Your task to perform on an android device: remove spam from my inbox in the gmail app Image 0: 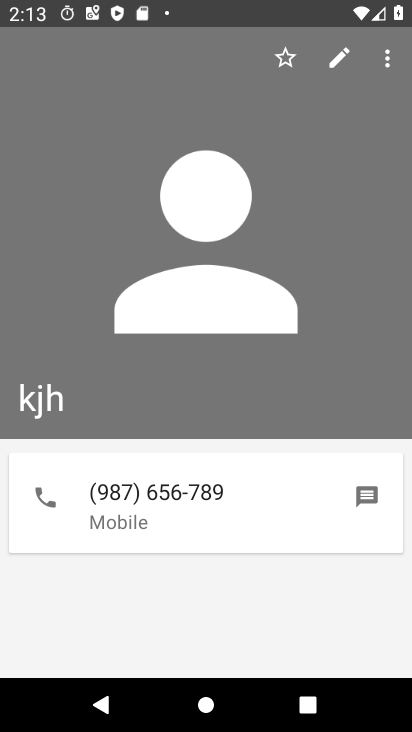
Step 0: press home button
Your task to perform on an android device: remove spam from my inbox in the gmail app Image 1: 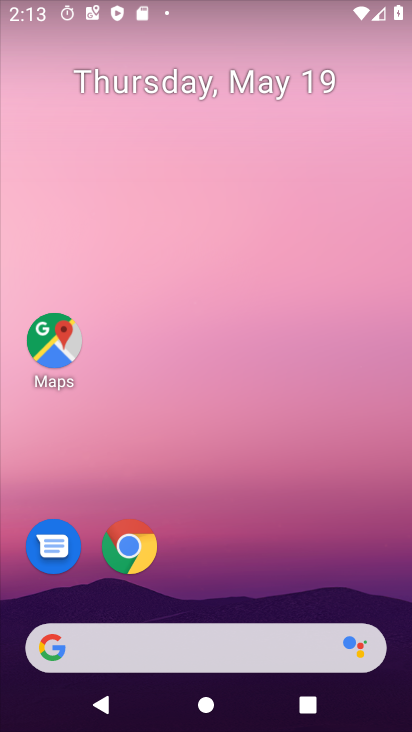
Step 1: drag from (150, 602) to (242, 4)
Your task to perform on an android device: remove spam from my inbox in the gmail app Image 2: 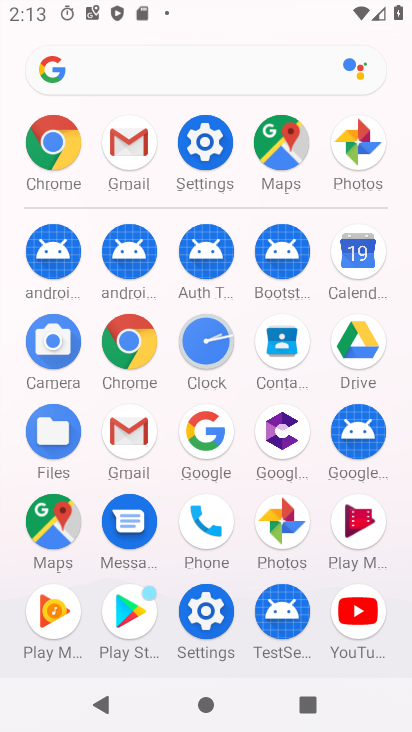
Step 2: click (142, 126)
Your task to perform on an android device: remove spam from my inbox in the gmail app Image 3: 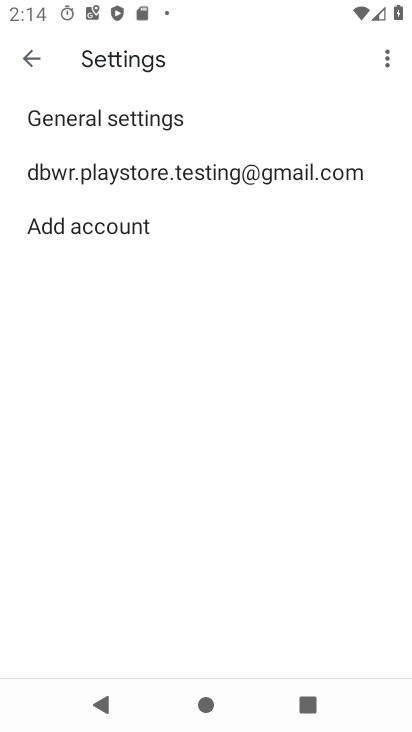
Step 3: click (18, 50)
Your task to perform on an android device: remove spam from my inbox in the gmail app Image 4: 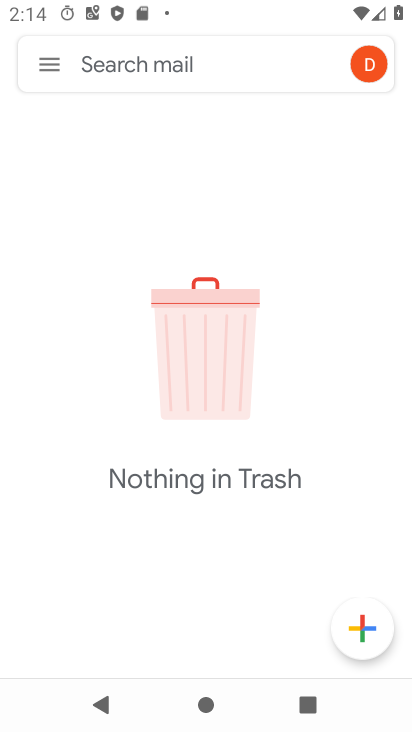
Step 4: click (57, 70)
Your task to perform on an android device: remove spam from my inbox in the gmail app Image 5: 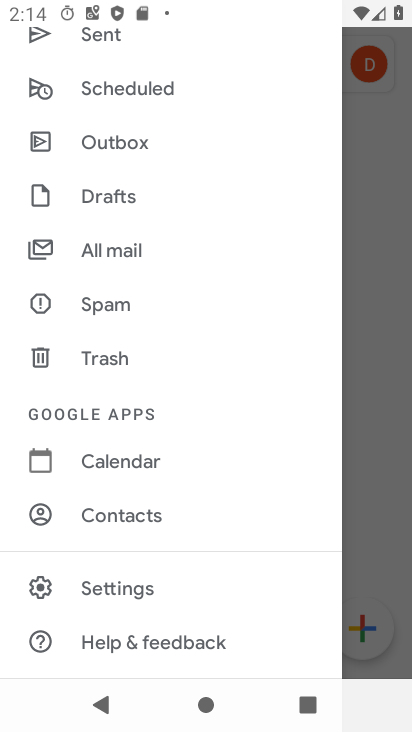
Step 5: click (111, 308)
Your task to perform on an android device: remove spam from my inbox in the gmail app Image 6: 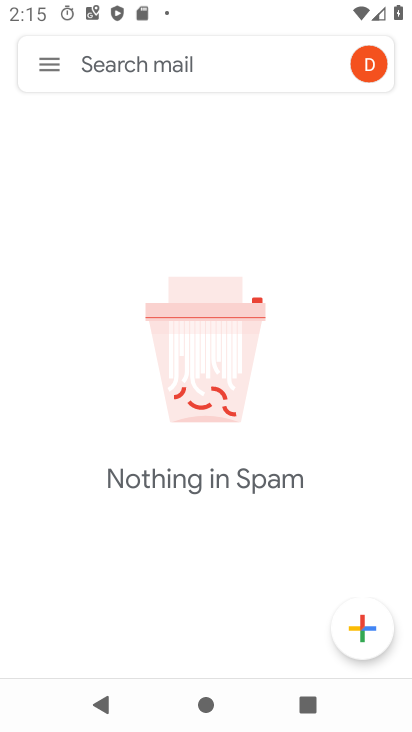
Step 6: task complete